Your task to perform on an android device: check battery use Image 0: 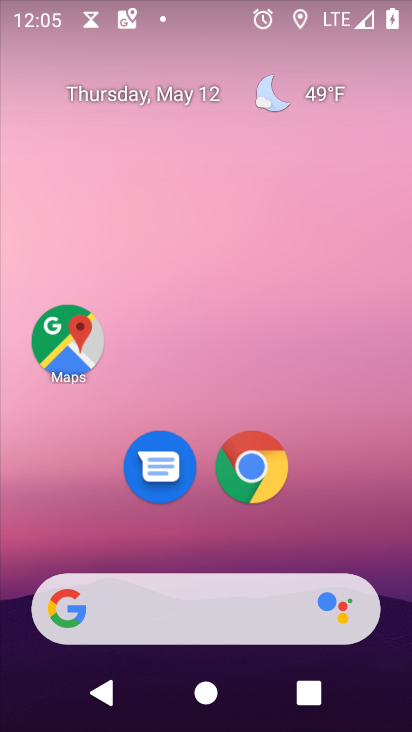
Step 0: drag from (223, 586) to (301, 281)
Your task to perform on an android device: check battery use Image 1: 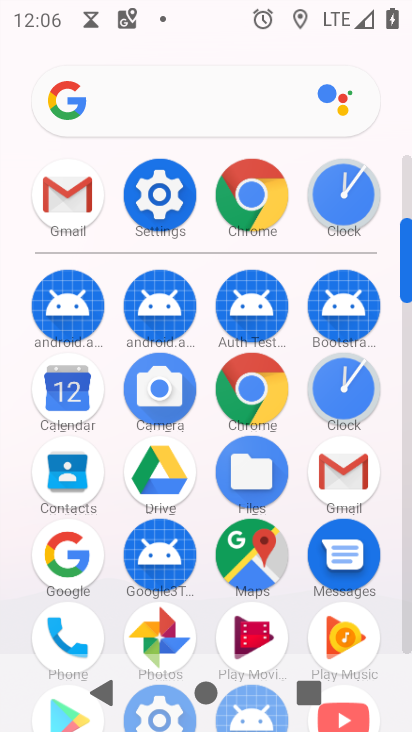
Step 1: click (168, 214)
Your task to perform on an android device: check battery use Image 2: 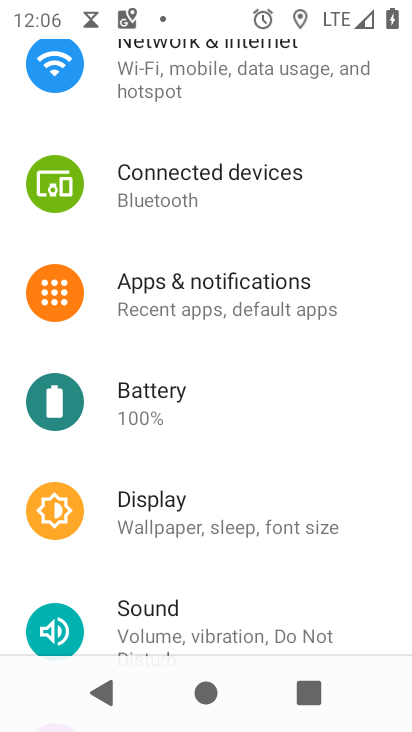
Step 2: click (136, 395)
Your task to perform on an android device: check battery use Image 3: 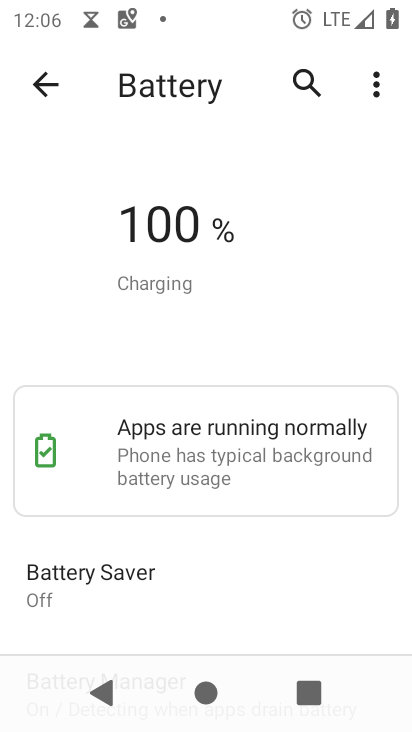
Step 3: click (379, 94)
Your task to perform on an android device: check battery use Image 4: 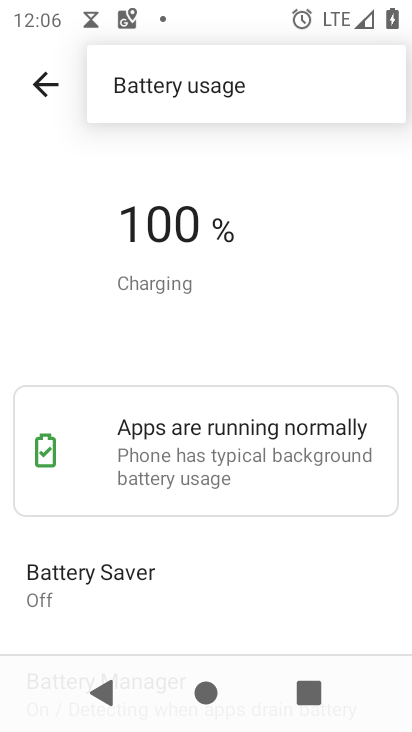
Step 4: click (230, 85)
Your task to perform on an android device: check battery use Image 5: 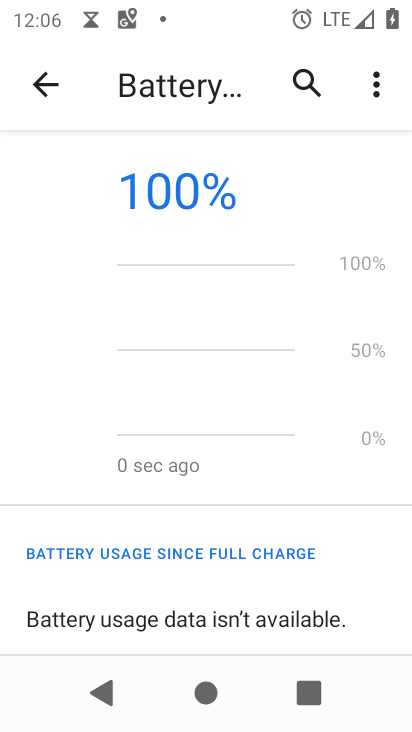
Step 5: task complete